Your task to perform on an android device: Open network settings Image 0: 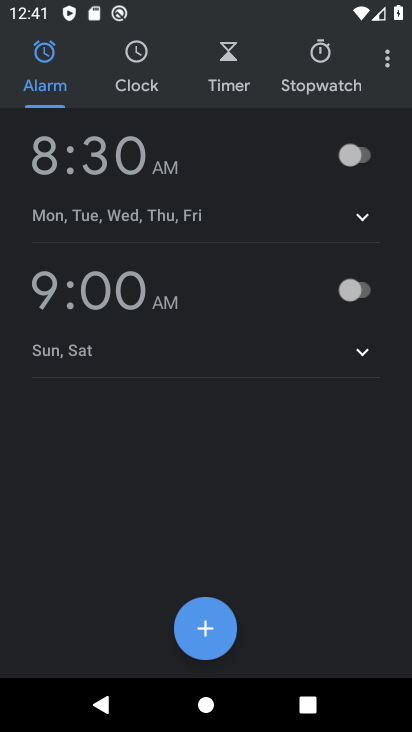
Step 0: press home button
Your task to perform on an android device: Open network settings Image 1: 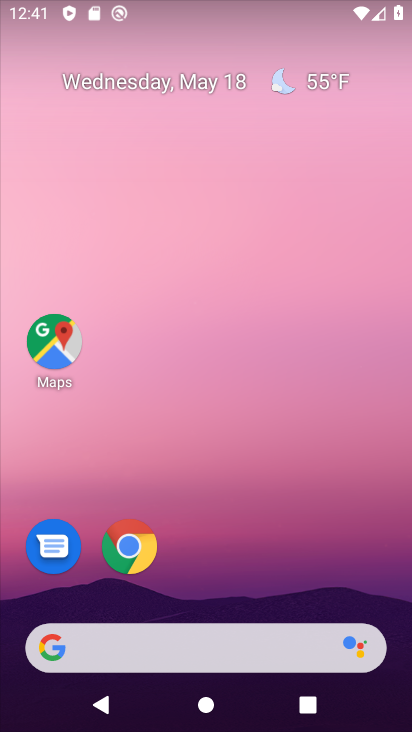
Step 1: drag from (366, 549) to (351, 188)
Your task to perform on an android device: Open network settings Image 2: 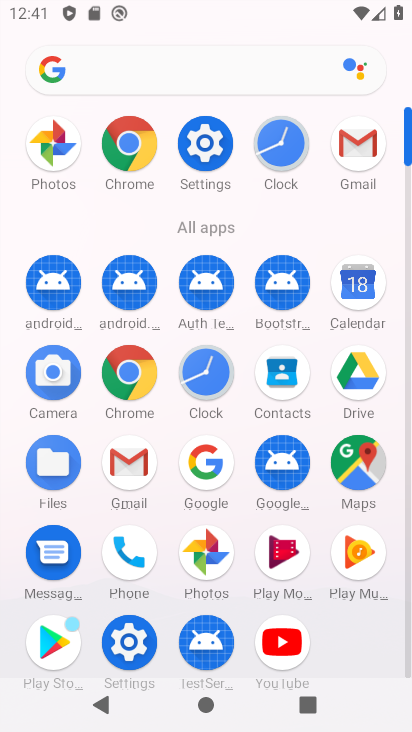
Step 2: click (199, 162)
Your task to perform on an android device: Open network settings Image 3: 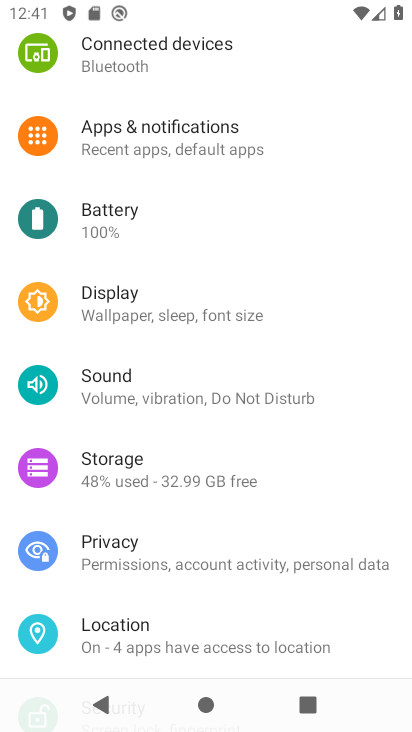
Step 3: drag from (201, 158) to (237, 453)
Your task to perform on an android device: Open network settings Image 4: 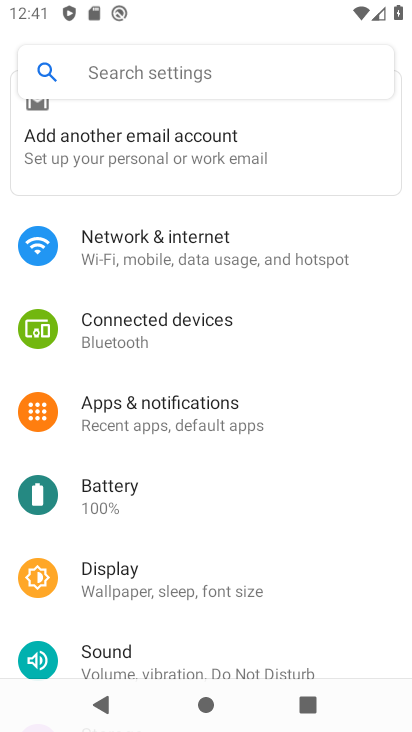
Step 4: click (200, 237)
Your task to perform on an android device: Open network settings Image 5: 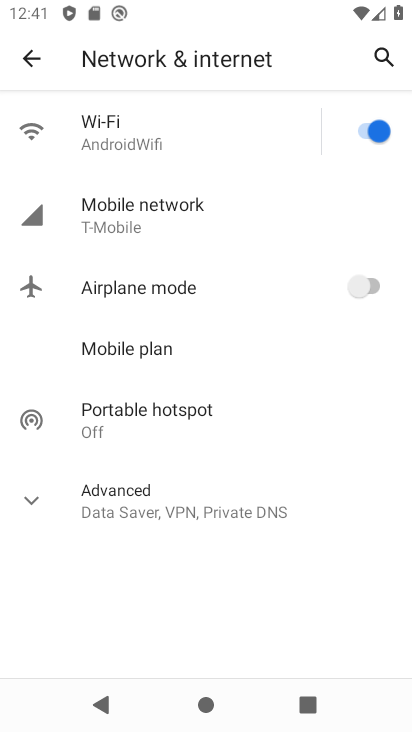
Step 5: task complete